Your task to perform on an android device: open app "Firefox Browser" (install if not already installed) Image 0: 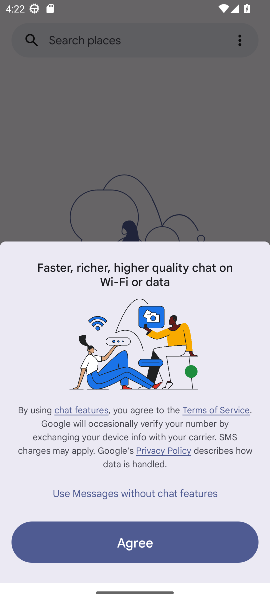
Step 0: press home button
Your task to perform on an android device: open app "Firefox Browser" (install if not already installed) Image 1: 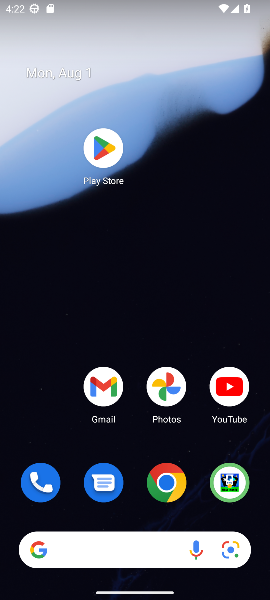
Step 1: click (107, 150)
Your task to perform on an android device: open app "Firefox Browser" (install if not already installed) Image 2: 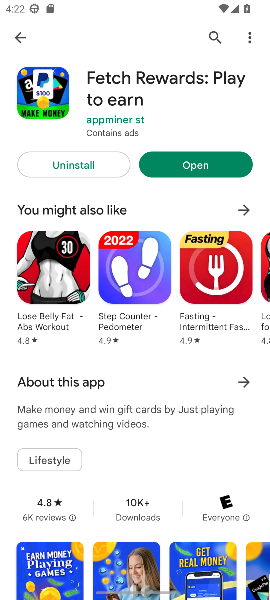
Step 2: click (213, 36)
Your task to perform on an android device: open app "Firefox Browser" (install if not already installed) Image 3: 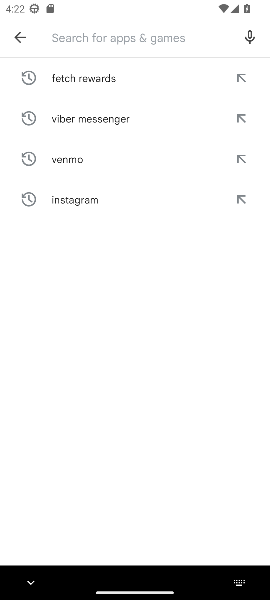
Step 3: type "Firefox Browser"
Your task to perform on an android device: open app "Firefox Browser" (install if not already installed) Image 4: 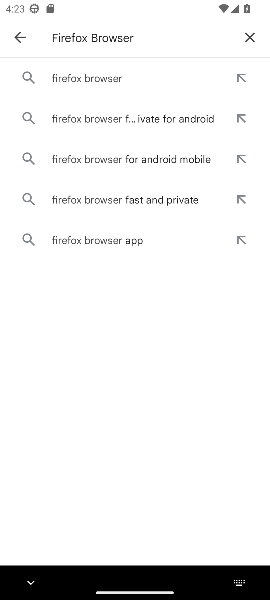
Step 4: click (85, 80)
Your task to perform on an android device: open app "Firefox Browser" (install if not already installed) Image 5: 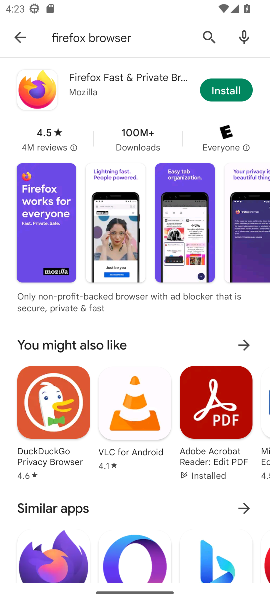
Step 5: click (227, 89)
Your task to perform on an android device: open app "Firefox Browser" (install if not already installed) Image 6: 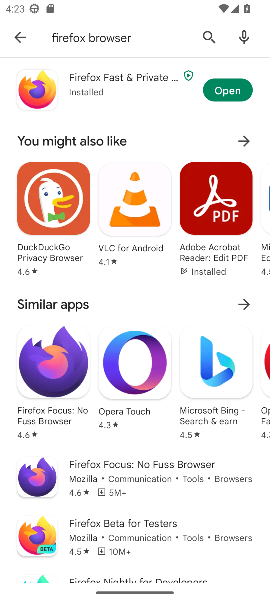
Step 6: click (225, 96)
Your task to perform on an android device: open app "Firefox Browser" (install if not already installed) Image 7: 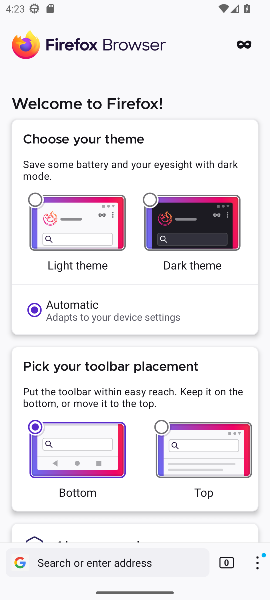
Step 7: task complete